Your task to perform on an android device: turn off notifications in google photos Image 0: 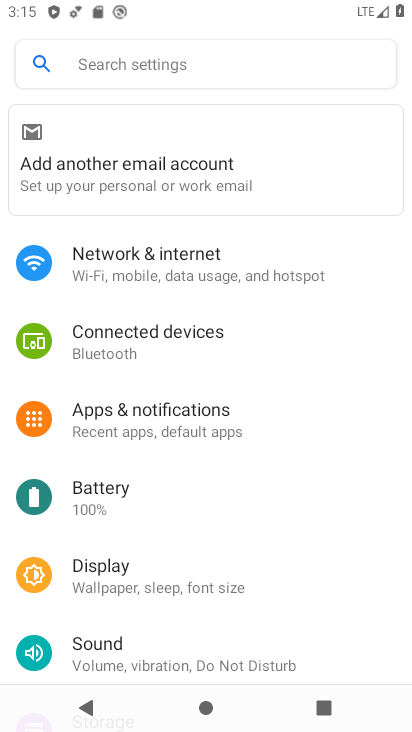
Step 0: press back button
Your task to perform on an android device: turn off notifications in google photos Image 1: 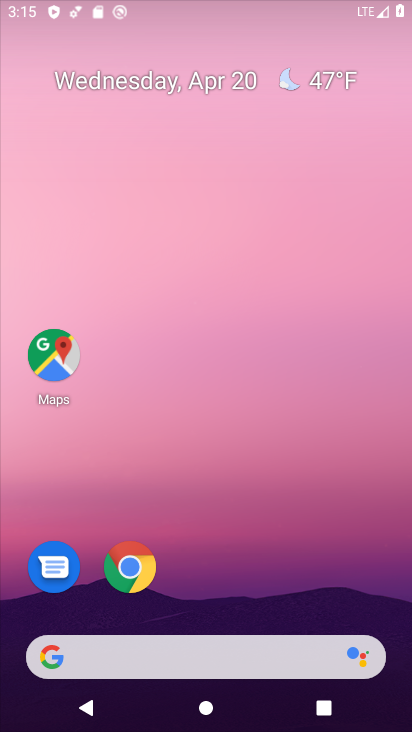
Step 1: drag from (346, 487) to (231, 21)
Your task to perform on an android device: turn off notifications in google photos Image 2: 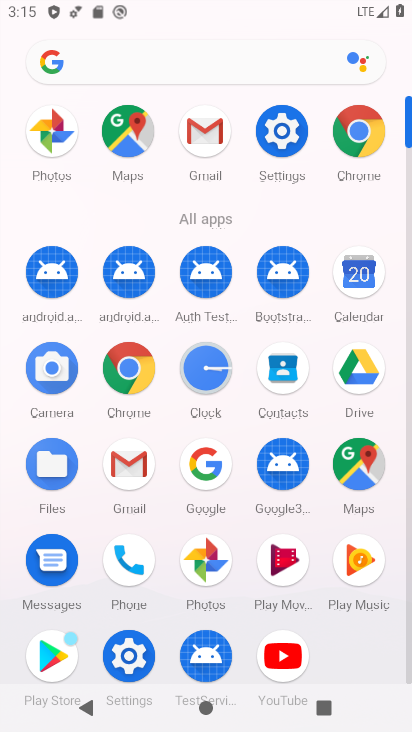
Step 2: drag from (12, 478) to (1, 256)
Your task to perform on an android device: turn off notifications in google photos Image 3: 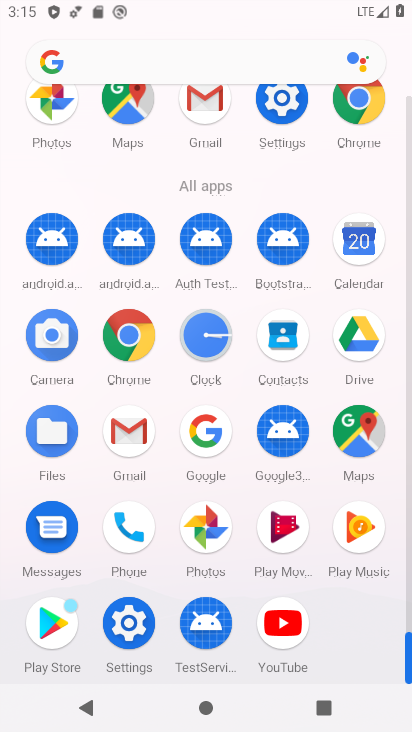
Step 3: click (206, 524)
Your task to perform on an android device: turn off notifications in google photos Image 4: 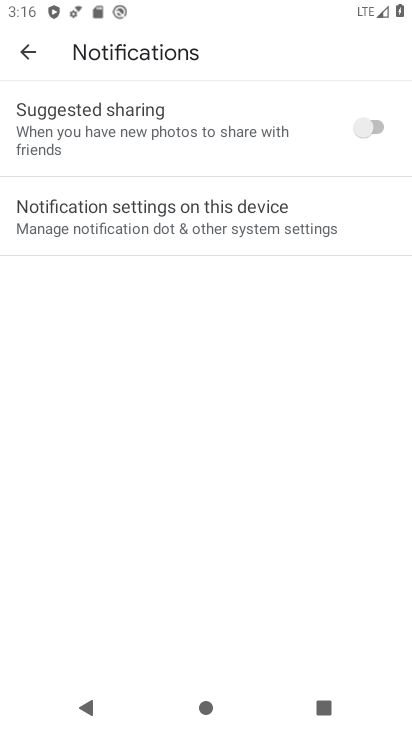
Step 4: click (185, 213)
Your task to perform on an android device: turn off notifications in google photos Image 5: 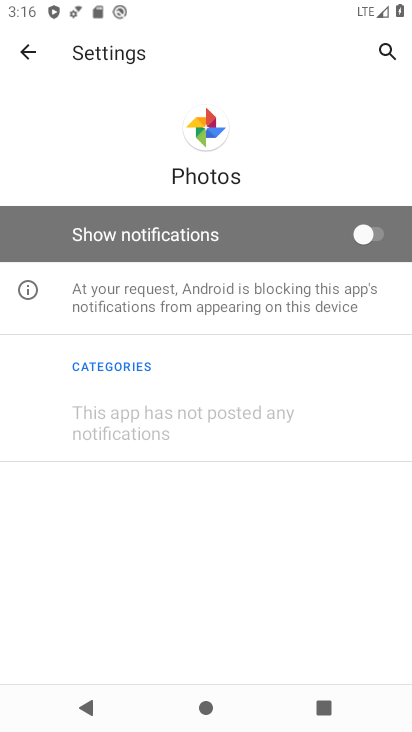
Step 5: task complete